Your task to perform on an android device: refresh tabs in the chrome app Image 0: 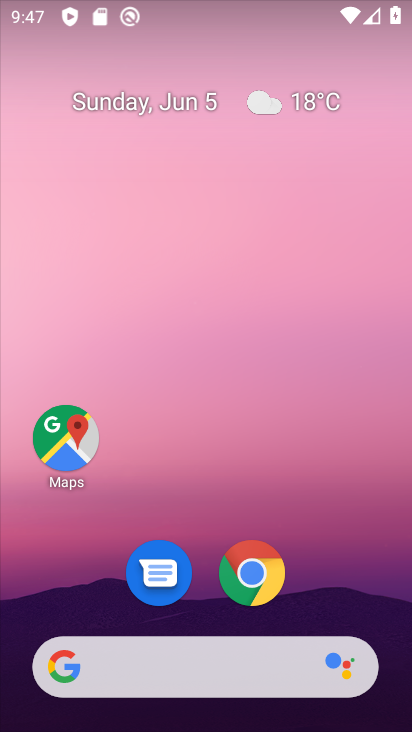
Step 0: click (262, 578)
Your task to perform on an android device: refresh tabs in the chrome app Image 1: 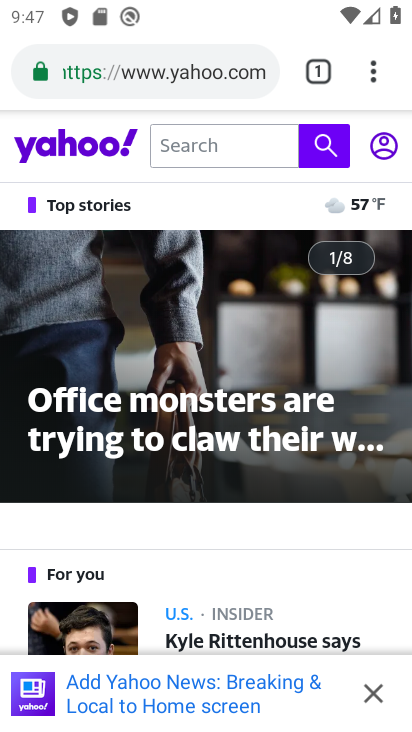
Step 1: click (374, 77)
Your task to perform on an android device: refresh tabs in the chrome app Image 2: 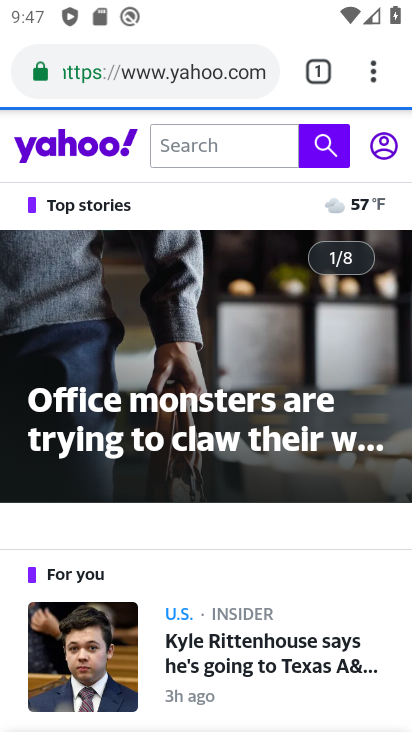
Step 2: click (374, 77)
Your task to perform on an android device: refresh tabs in the chrome app Image 3: 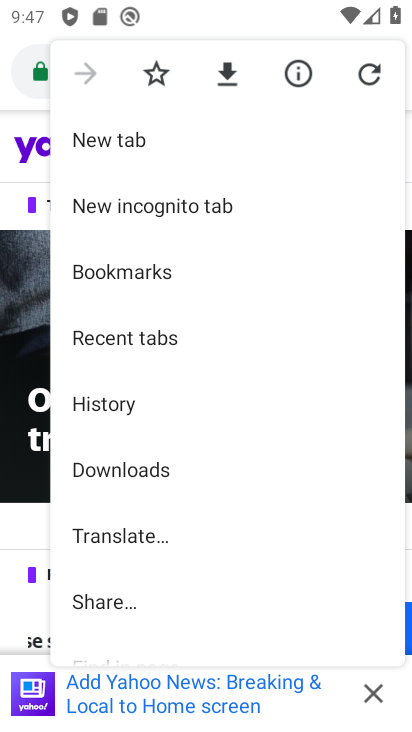
Step 3: click (373, 68)
Your task to perform on an android device: refresh tabs in the chrome app Image 4: 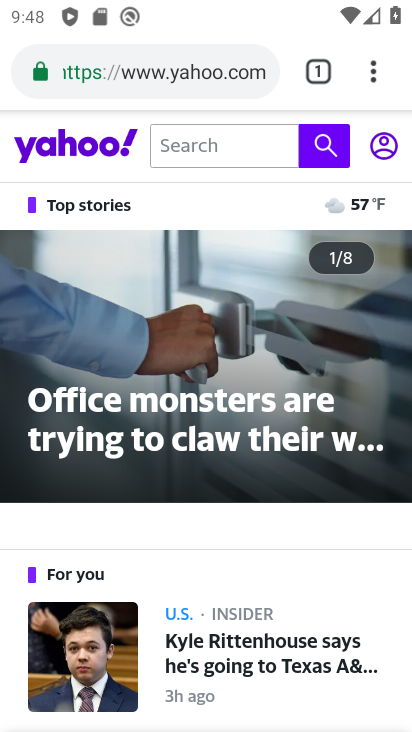
Step 4: task complete